Your task to perform on an android device: Is it going to rain this weekend? Image 0: 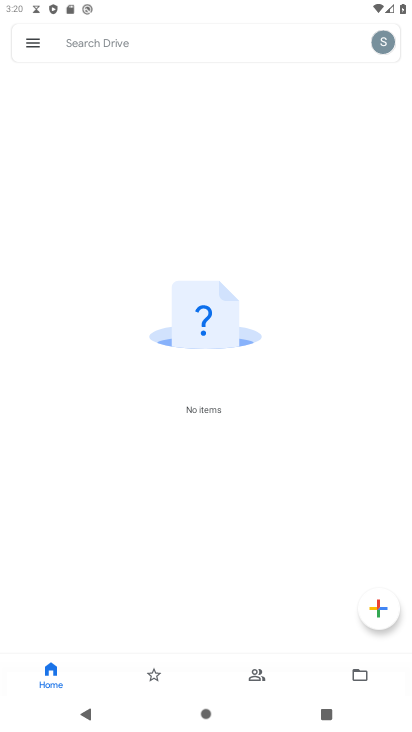
Step 0: press home button
Your task to perform on an android device: Is it going to rain this weekend? Image 1: 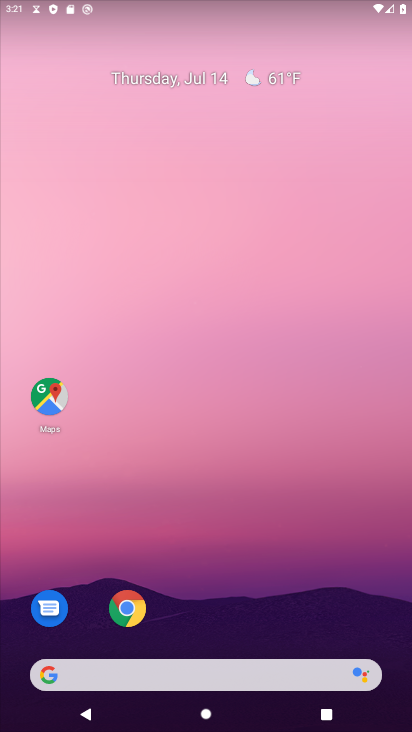
Step 1: drag from (190, 669) to (189, 250)
Your task to perform on an android device: Is it going to rain this weekend? Image 2: 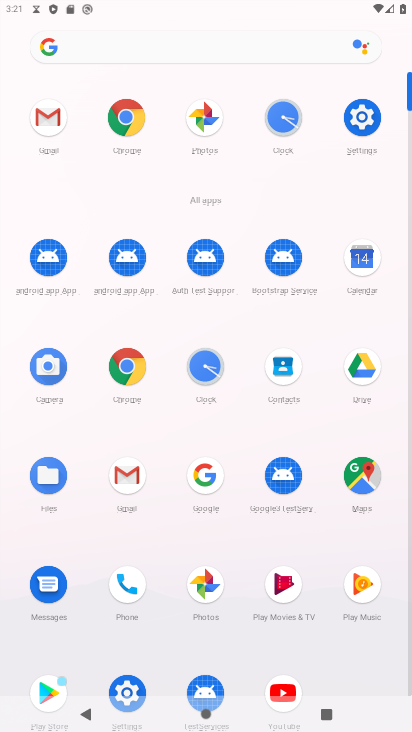
Step 2: click (134, 398)
Your task to perform on an android device: Is it going to rain this weekend? Image 3: 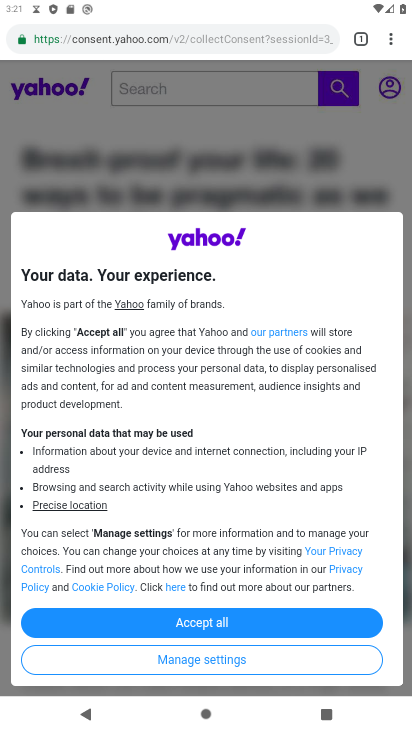
Step 3: click (197, 631)
Your task to perform on an android device: Is it going to rain this weekend? Image 4: 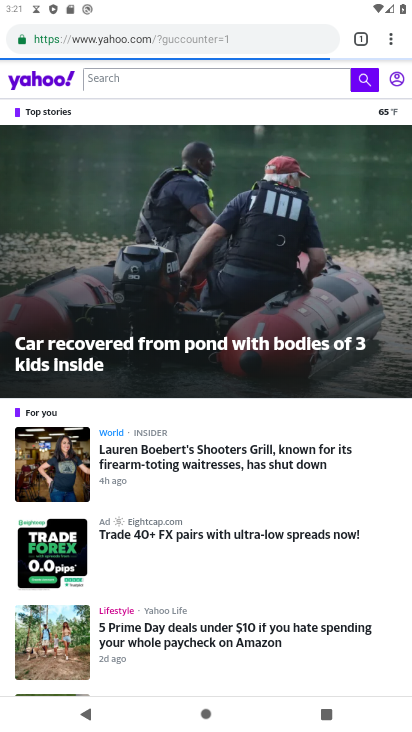
Step 4: click (202, 39)
Your task to perform on an android device: Is it going to rain this weekend? Image 5: 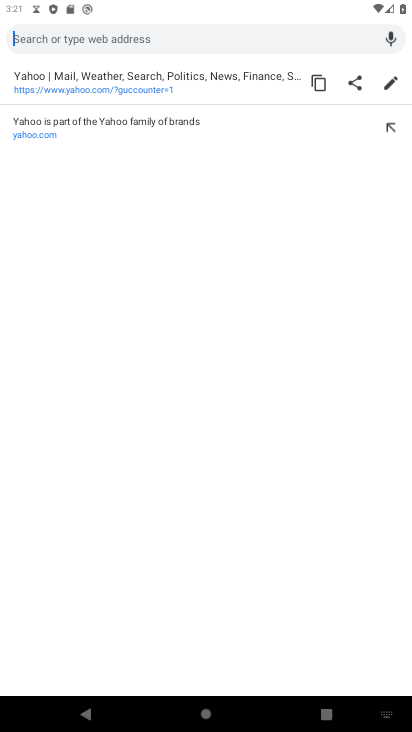
Step 5: type "weather this weekedn"
Your task to perform on an android device: Is it going to rain this weekend? Image 6: 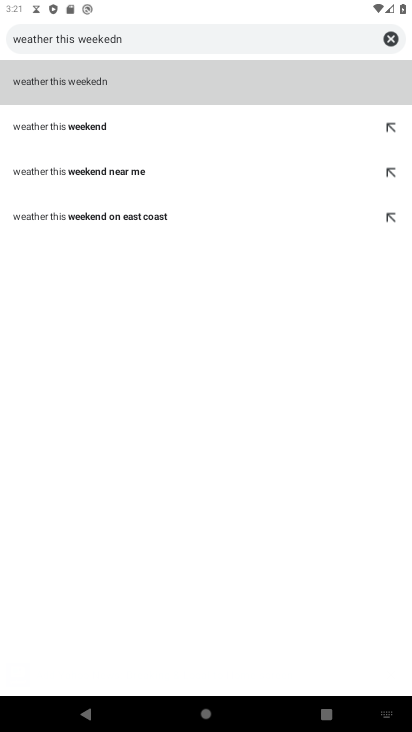
Step 6: click (122, 119)
Your task to perform on an android device: Is it going to rain this weekend? Image 7: 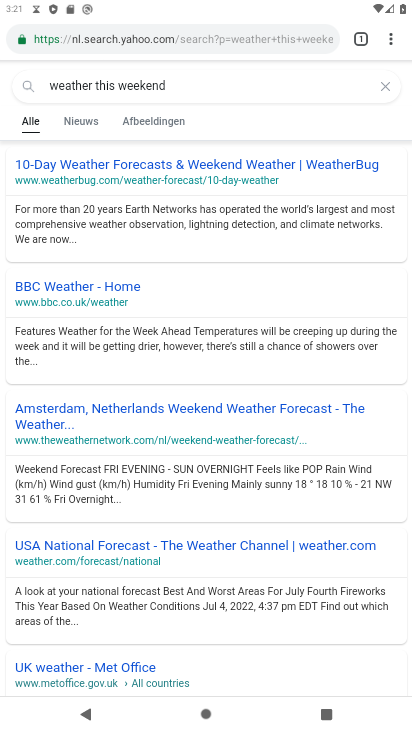
Step 7: click (201, 164)
Your task to perform on an android device: Is it going to rain this weekend? Image 8: 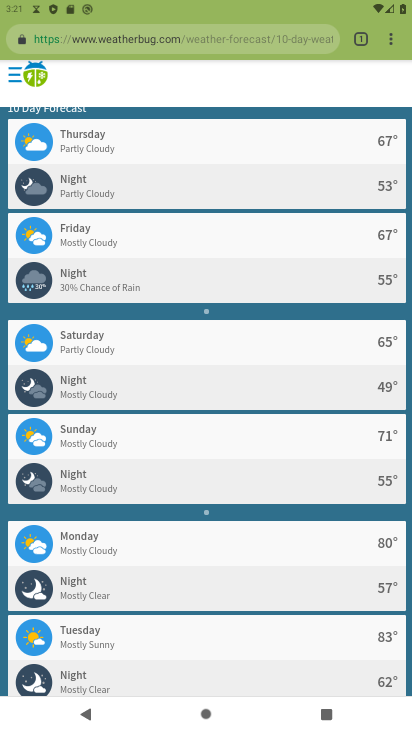
Step 8: task complete